Your task to perform on an android device: visit the assistant section in the google photos Image 0: 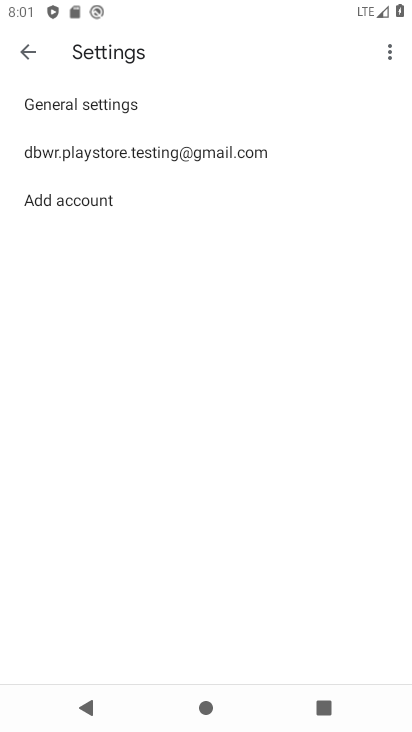
Step 0: press back button
Your task to perform on an android device: visit the assistant section in the google photos Image 1: 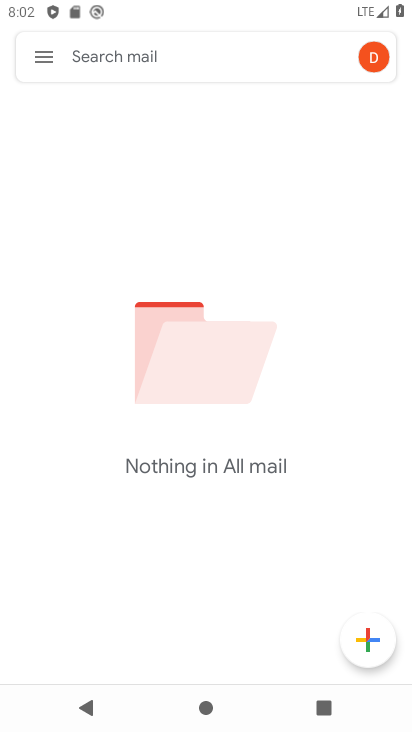
Step 1: press back button
Your task to perform on an android device: visit the assistant section in the google photos Image 2: 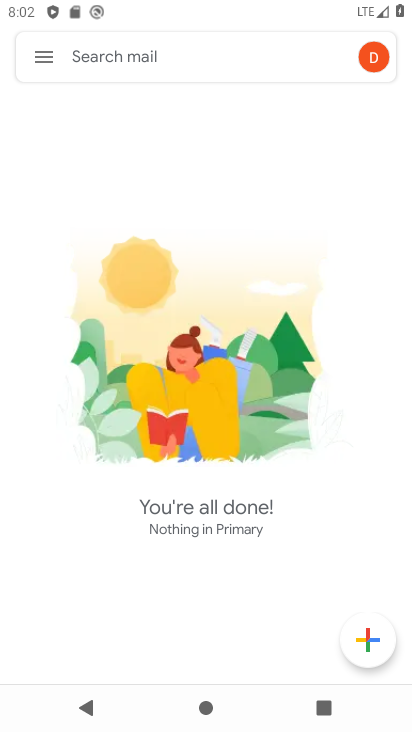
Step 2: press back button
Your task to perform on an android device: visit the assistant section in the google photos Image 3: 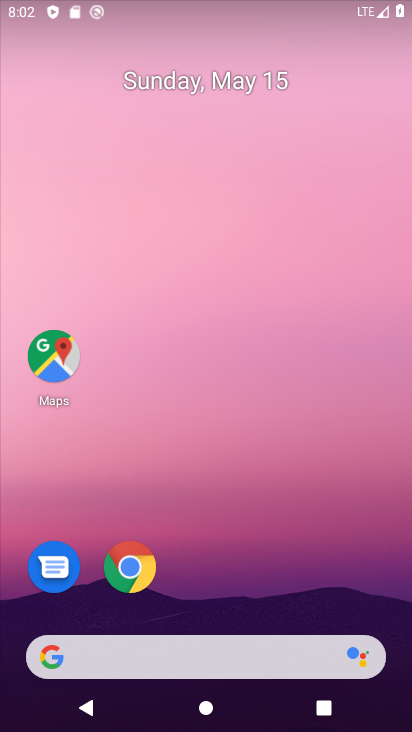
Step 3: drag from (295, 584) to (347, 82)
Your task to perform on an android device: visit the assistant section in the google photos Image 4: 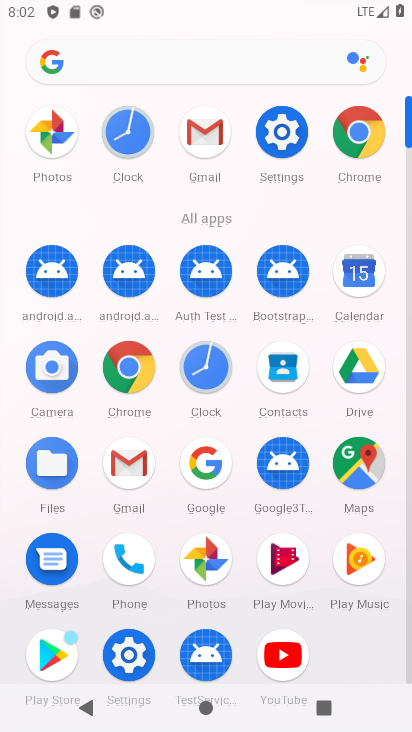
Step 4: click (215, 558)
Your task to perform on an android device: visit the assistant section in the google photos Image 5: 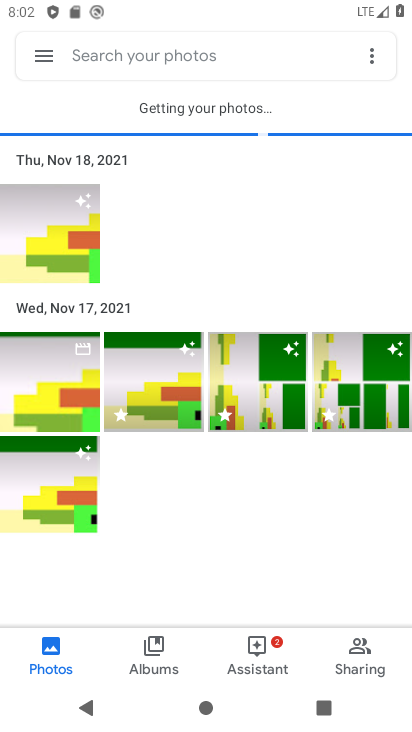
Step 5: click (251, 655)
Your task to perform on an android device: visit the assistant section in the google photos Image 6: 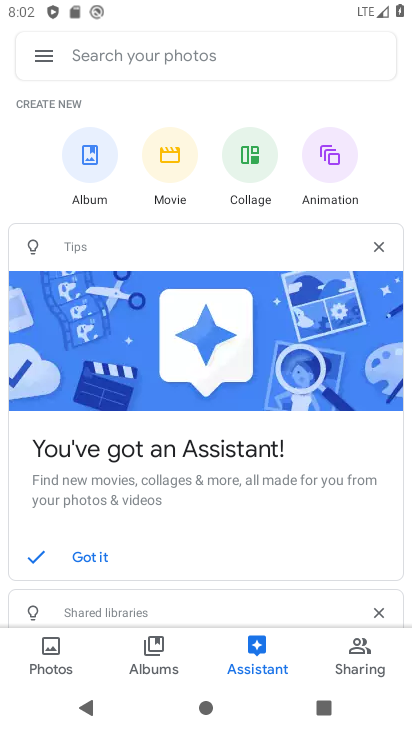
Step 6: task complete